Your task to perform on an android device: toggle show notifications on the lock screen Image 0: 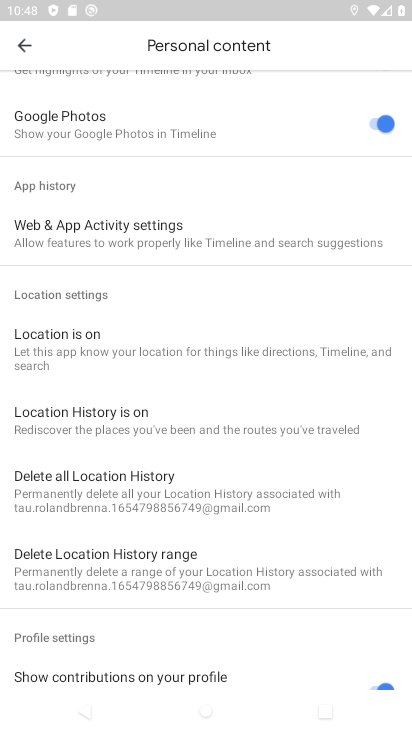
Step 0: press home button
Your task to perform on an android device: toggle show notifications on the lock screen Image 1: 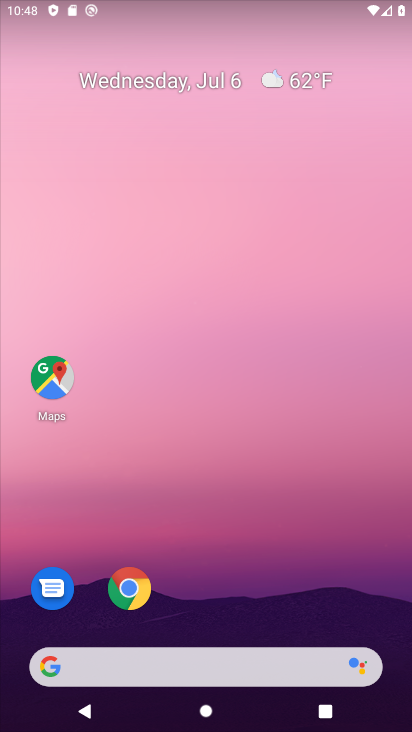
Step 1: drag from (384, 608) to (361, 107)
Your task to perform on an android device: toggle show notifications on the lock screen Image 2: 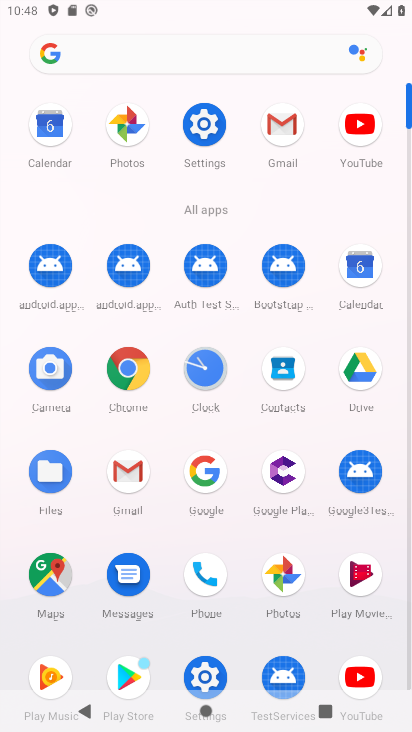
Step 2: click (203, 674)
Your task to perform on an android device: toggle show notifications on the lock screen Image 3: 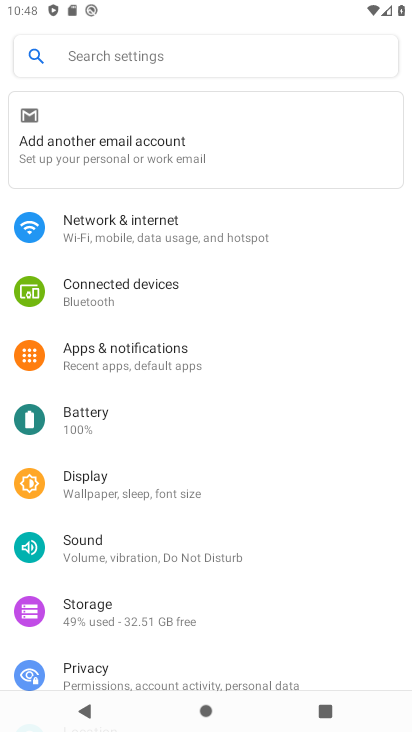
Step 3: click (123, 355)
Your task to perform on an android device: toggle show notifications on the lock screen Image 4: 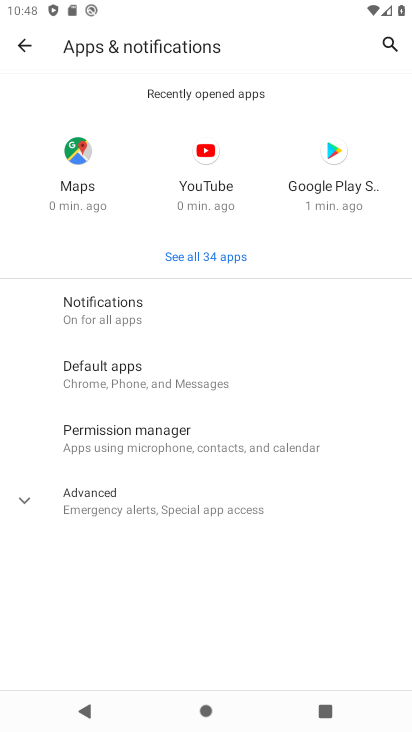
Step 4: click (93, 310)
Your task to perform on an android device: toggle show notifications on the lock screen Image 5: 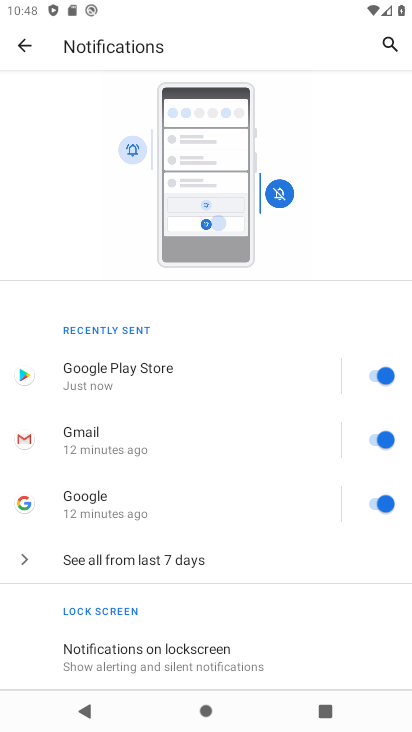
Step 5: drag from (224, 593) to (216, 226)
Your task to perform on an android device: toggle show notifications on the lock screen Image 6: 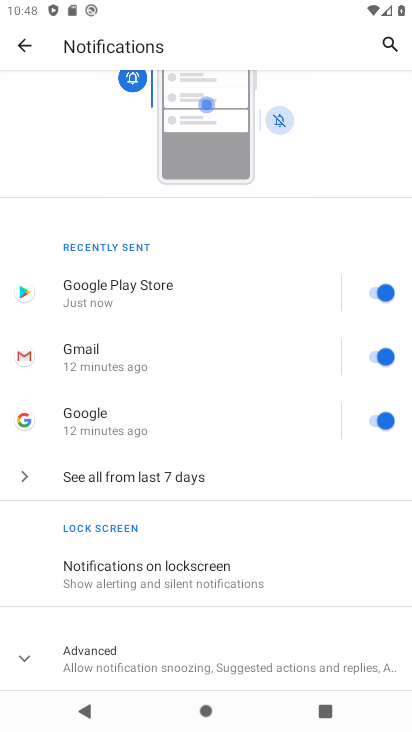
Step 6: click (103, 569)
Your task to perform on an android device: toggle show notifications on the lock screen Image 7: 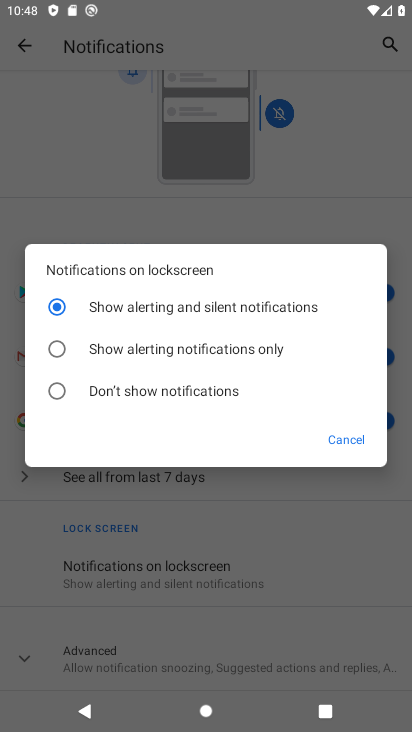
Step 7: click (56, 350)
Your task to perform on an android device: toggle show notifications on the lock screen Image 8: 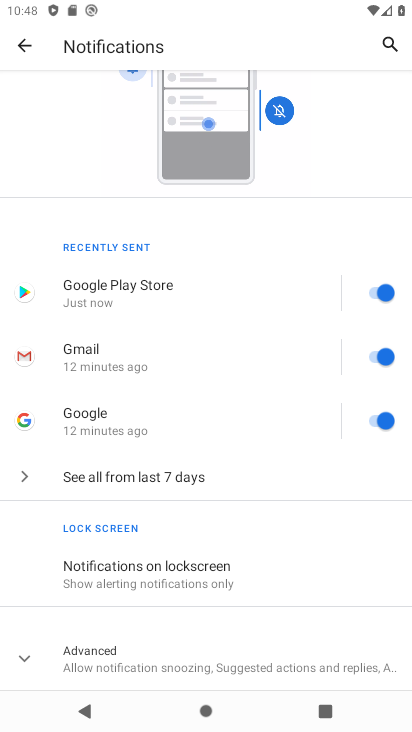
Step 8: task complete